Your task to perform on an android device: Open Google Chrome and click the shortcut for Amazon.com Image 0: 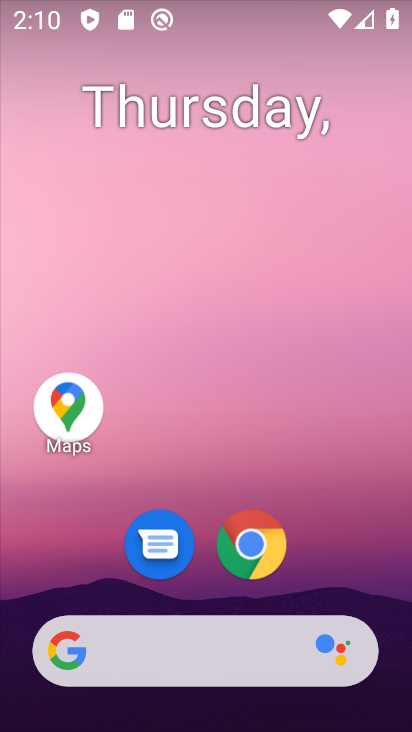
Step 0: click (271, 534)
Your task to perform on an android device: Open Google Chrome and click the shortcut for Amazon.com Image 1: 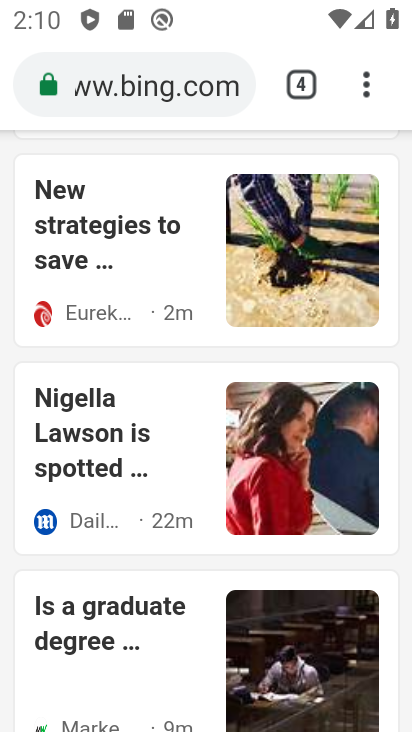
Step 1: click (303, 88)
Your task to perform on an android device: Open Google Chrome and click the shortcut for Amazon.com Image 2: 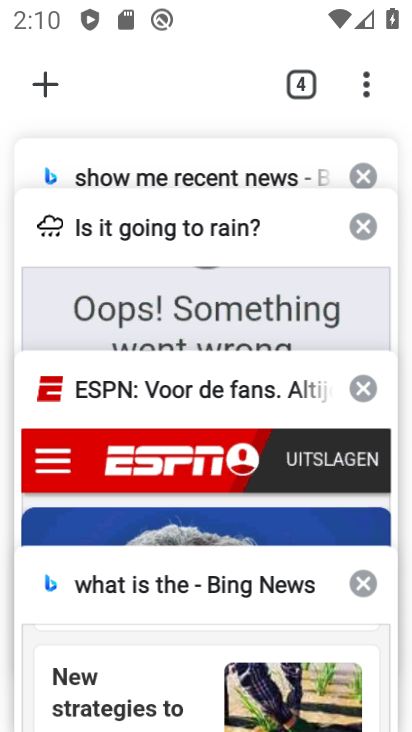
Step 2: click (56, 82)
Your task to perform on an android device: Open Google Chrome and click the shortcut for Amazon.com Image 3: 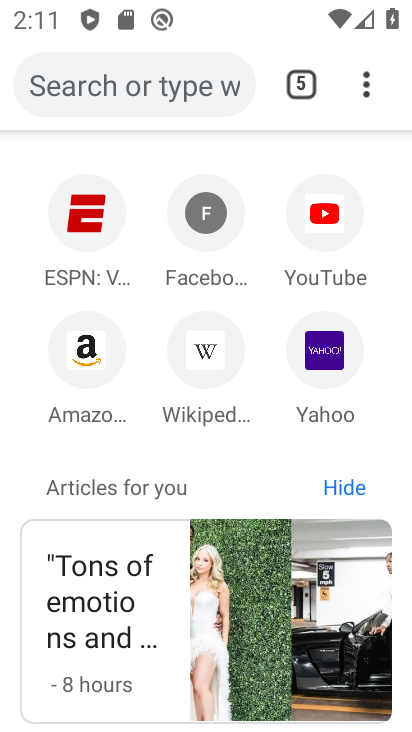
Step 3: click (85, 369)
Your task to perform on an android device: Open Google Chrome and click the shortcut for Amazon.com Image 4: 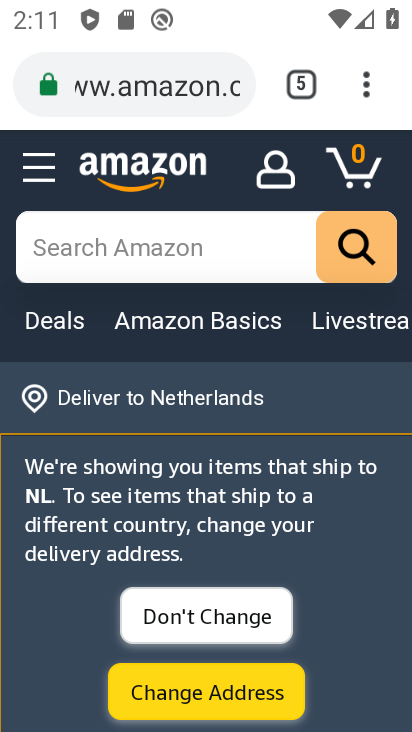
Step 4: task complete